Your task to perform on an android device: see creations saved in the google photos Image 0: 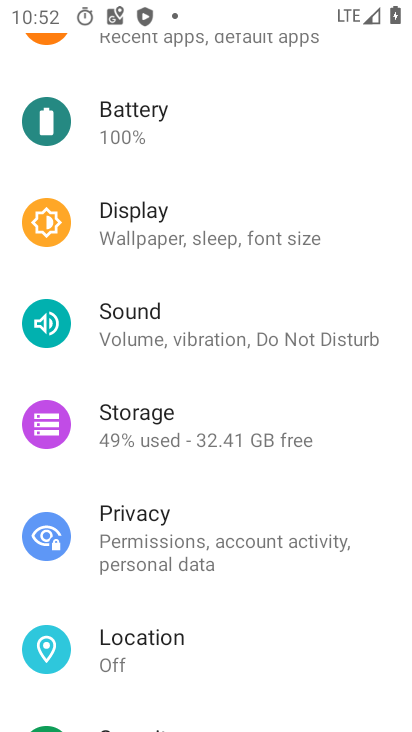
Step 0: press home button
Your task to perform on an android device: see creations saved in the google photos Image 1: 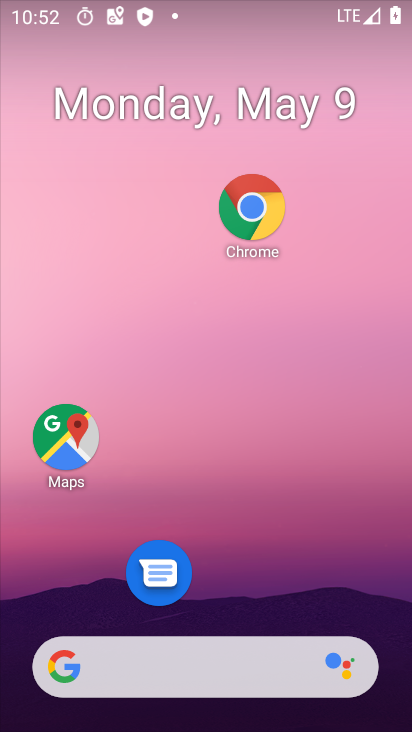
Step 1: drag from (255, 560) to (403, 231)
Your task to perform on an android device: see creations saved in the google photos Image 2: 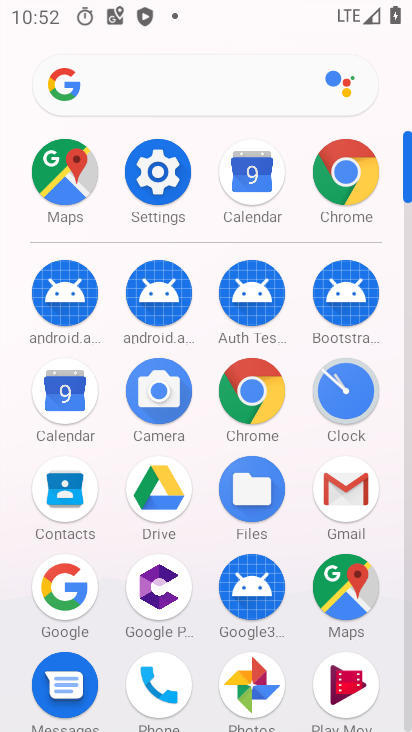
Step 2: drag from (231, 531) to (237, 236)
Your task to perform on an android device: see creations saved in the google photos Image 3: 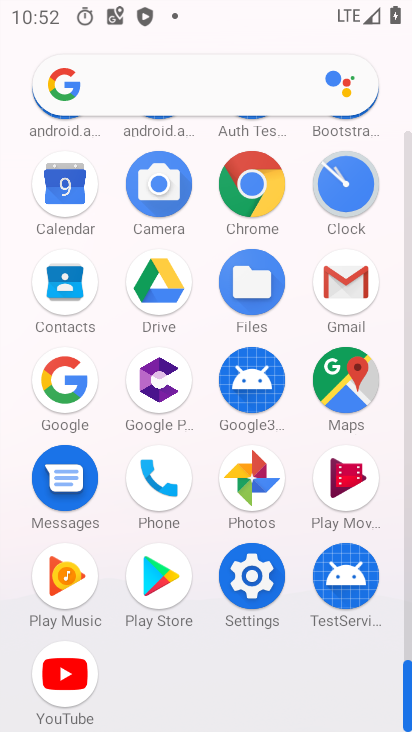
Step 3: click (265, 499)
Your task to perform on an android device: see creations saved in the google photos Image 4: 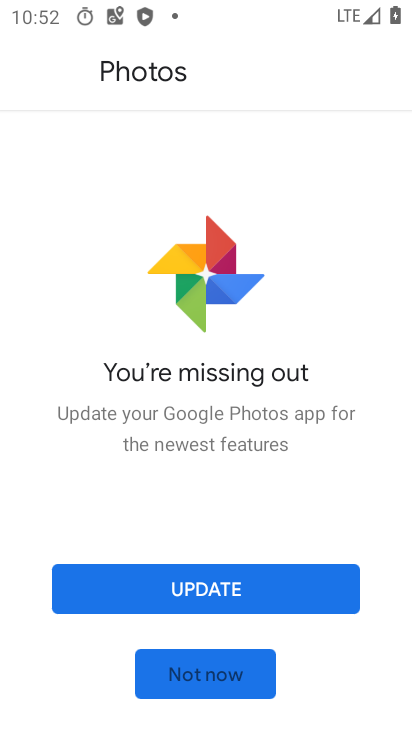
Step 4: click (229, 680)
Your task to perform on an android device: see creations saved in the google photos Image 5: 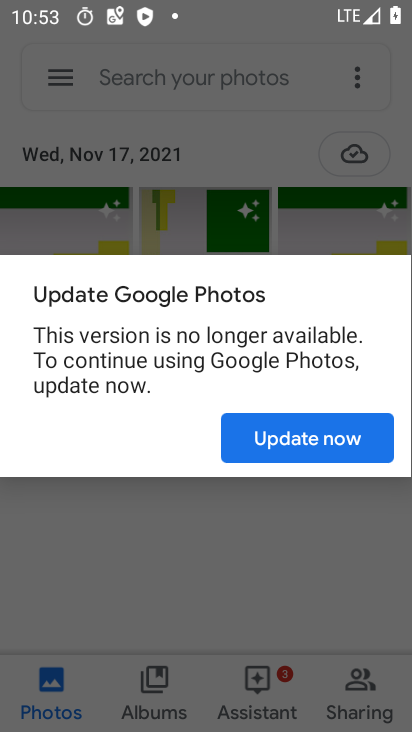
Step 5: task complete